Your task to perform on an android device: change notification settings in the gmail app Image 0: 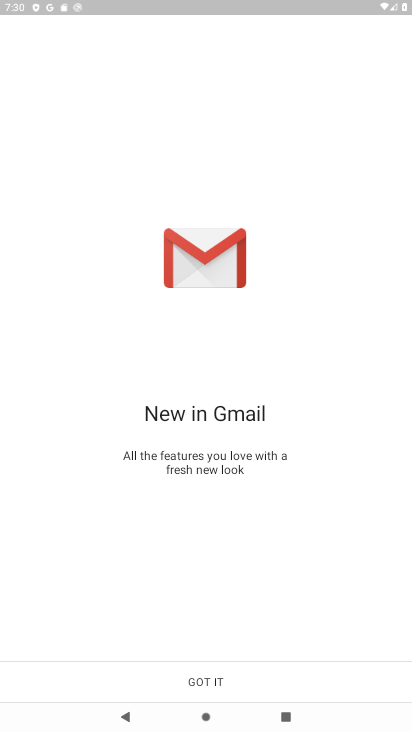
Step 0: click (245, 681)
Your task to perform on an android device: change notification settings in the gmail app Image 1: 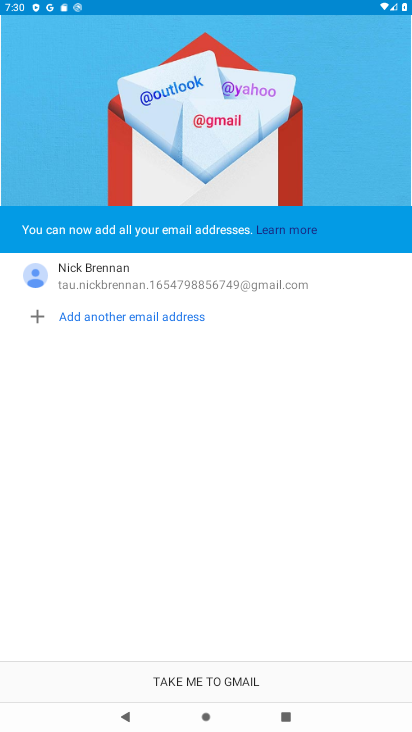
Step 1: click (245, 681)
Your task to perform on an android device: change notification settings in the gmail app Image 2: 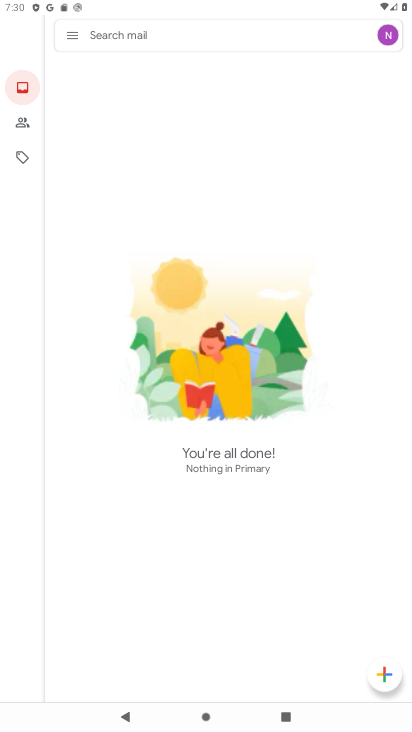
Step 2: click (70, 43)
Your task to perform on an android device: change notification settings in the gmail app Image 3: 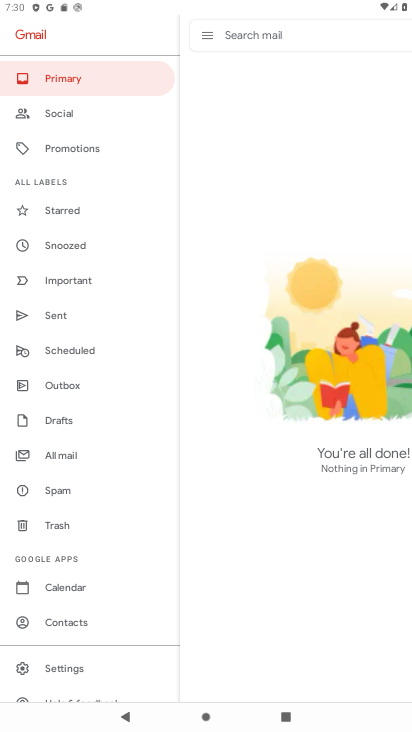
Step 3: click (128, 674)
Your task to perform on an android device: change notification settings in the gmail app Image 4: 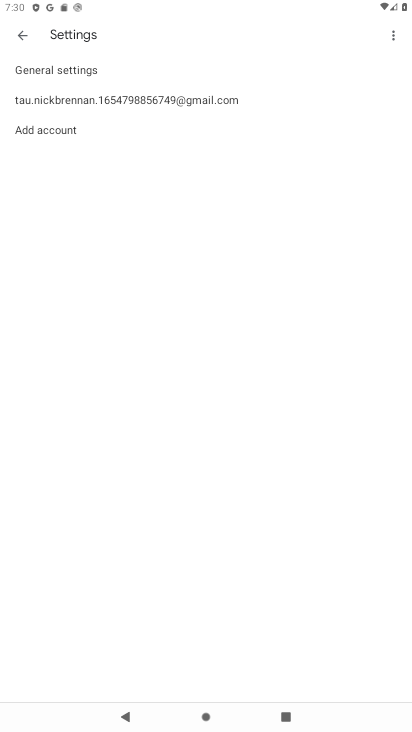
Step 4: click (80, 69)
Your task to perform on an android device: change notification settings in the gmail app Image 5: 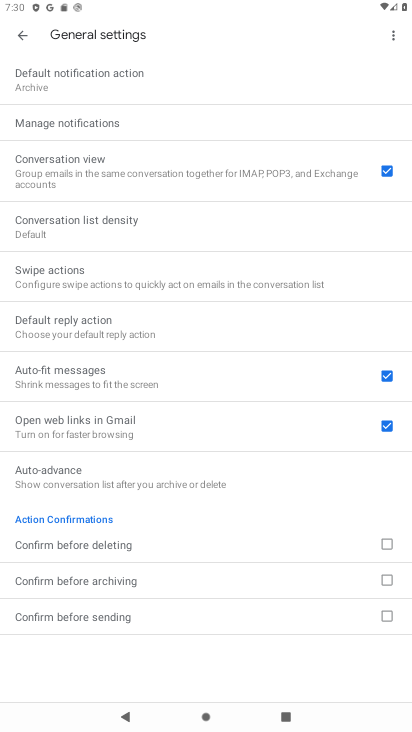
Step 5: task complete